Your task to perform on an android device: find photos in the google photos app Image 0: 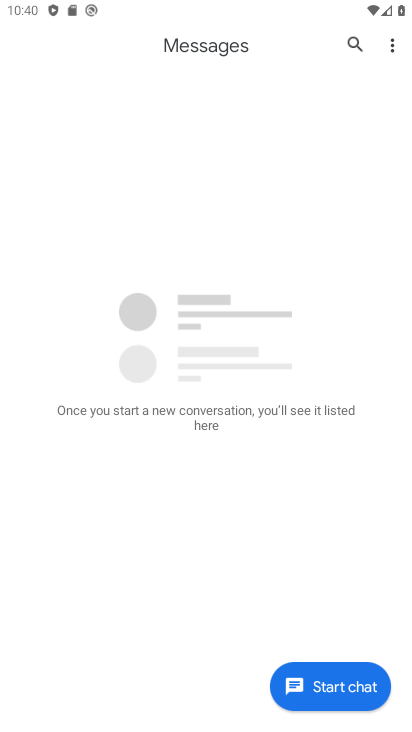
Step 0: press home button
Your task to perform on an android device: find photos in the google photos app Image 1: 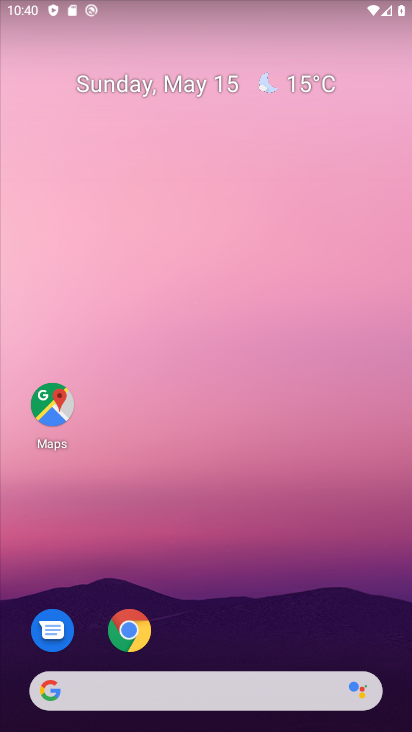
Step 1: drag from (354, 628) to (345, 56)
Your task to perform on an android device: find photos in the google photos app Image 2: 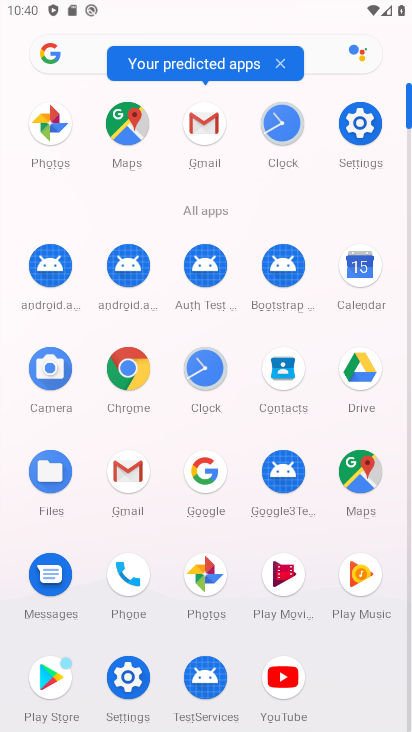
Step 2: click (207, 583)
Your task to perform on an android device: find photos in the google photos app Image 3: 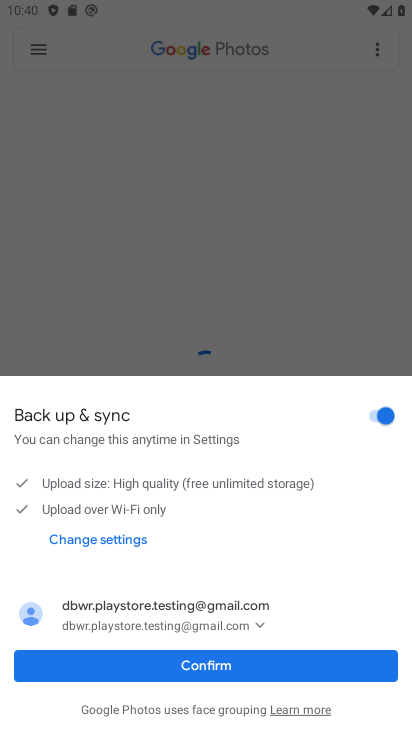
Step 3: click (268, 667)
Your task to perform on an android device: find photos in the google photos app Image 4: 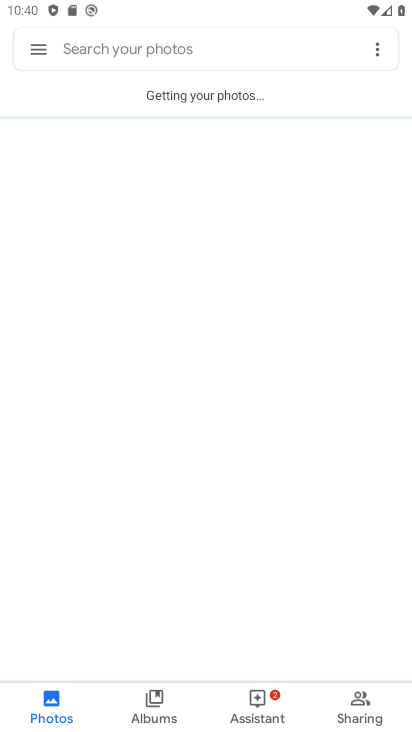
Step 4: task complete